Your task to perform on an android device: change alarm snooze length Image 0: 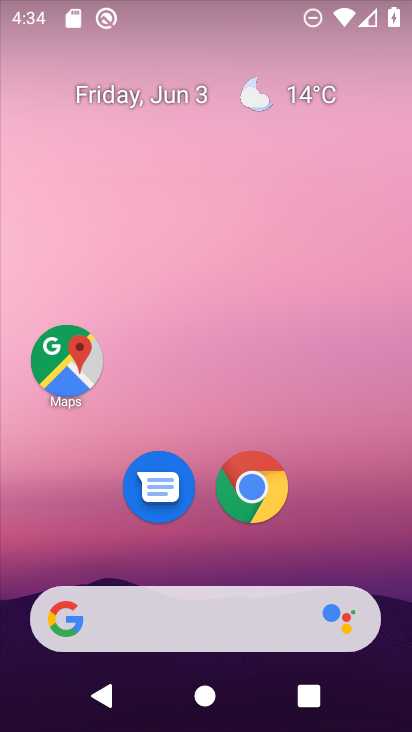
Step 0: drag from (173, 549) to (221, 26)
Your task to perform on an android device: change alarm snooze length Image 1: 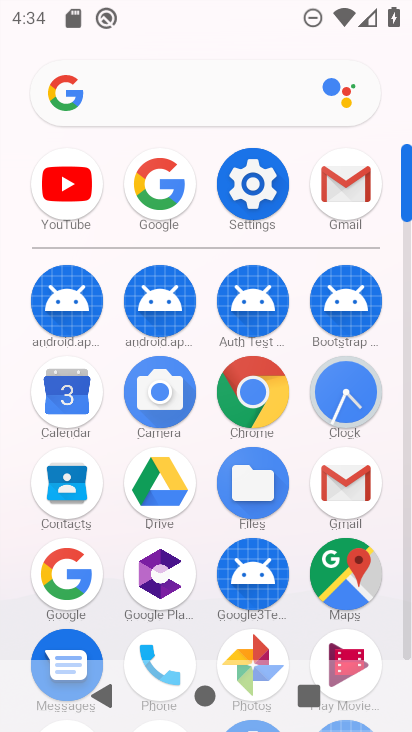
Step 1: click (341, 410)
Your task to perform on an android device: change alarm snooze length Image 2: 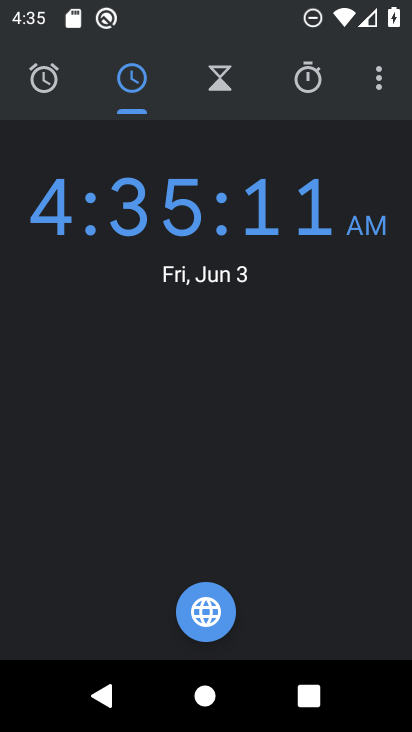
Step 2: click (375, 76)
Your task to perform on an android device: change alarm snooze length Image 3: 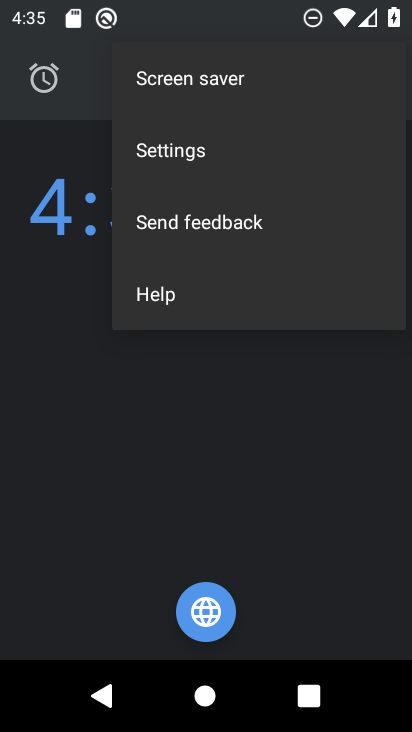
Step 3: click (202, 159)
Your task to perform on an android device: change alarm snooze length Image 4: 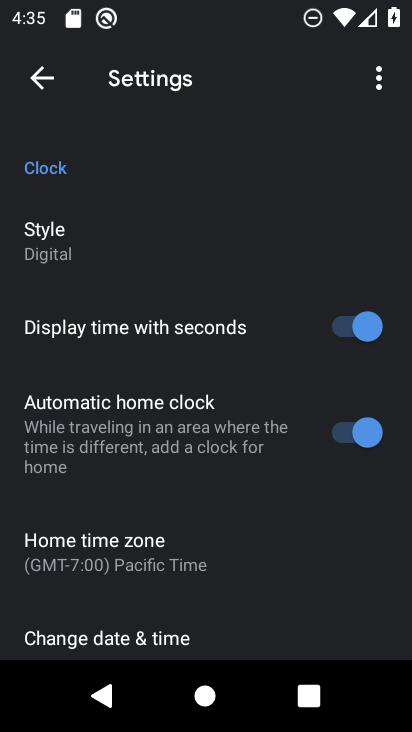
Step 4: drag from (125, 631) to (236, 156)
Your task to perform on an android device: change alarm snooze length Image 5: 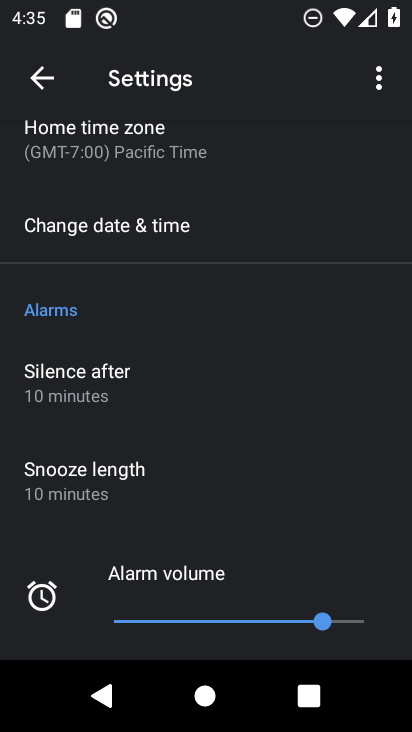
Step 5: click (82, 487)
Your task to perform on an android device: change alarm snooze length Image 6: 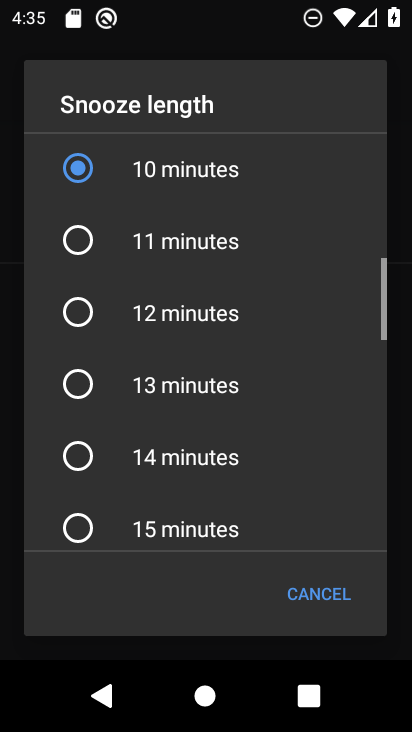
Step 6: click (79, 253)
Your task to perform on an android device: change alarm snooze length Image 7: 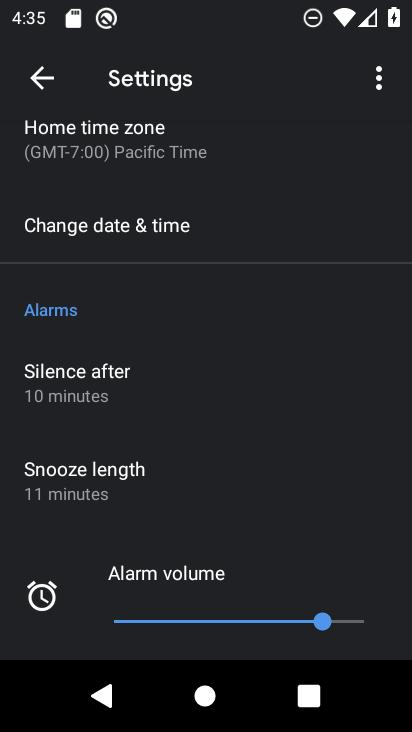
Step 7: task complete